Your task to perform on an android device: allow cookies in the chrome app Image 0: 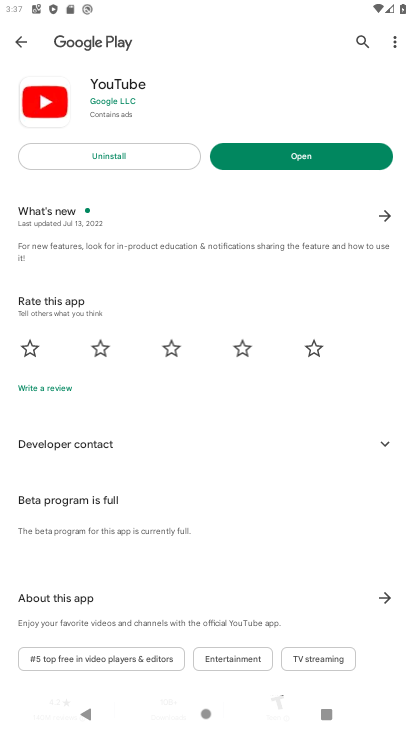
Step 0: press home button
Your task to perform on an android device: allow cookies in the chrome app Image 1: 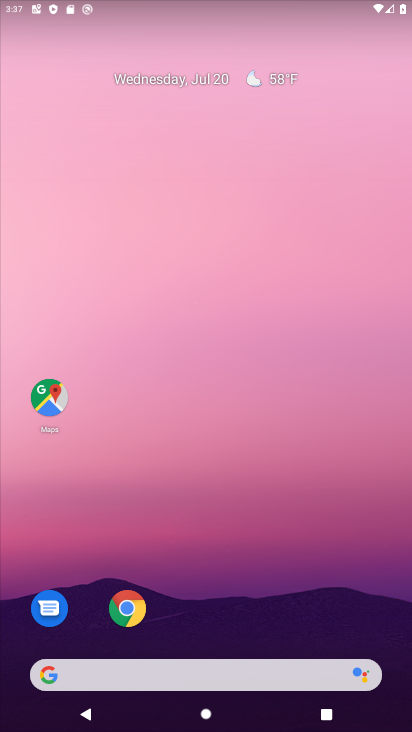
Step 1: click (141, 617)
Your task to perform on an android device: allow cookies in the chrome app Image 2: 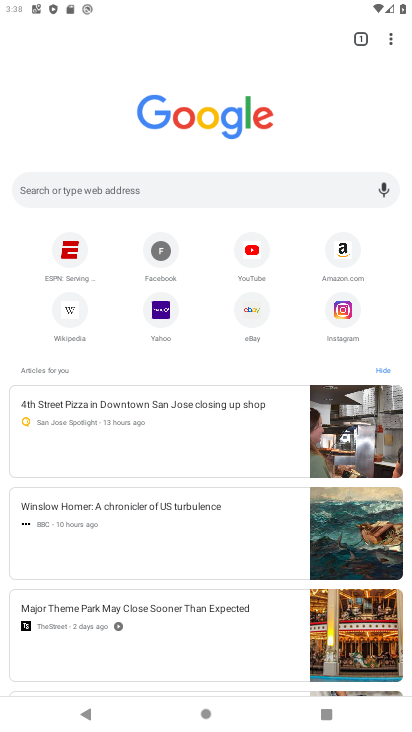
Step 2: click (384, 48)
Your task to perform on an android device: allow cookies in the chrome app Image 3: 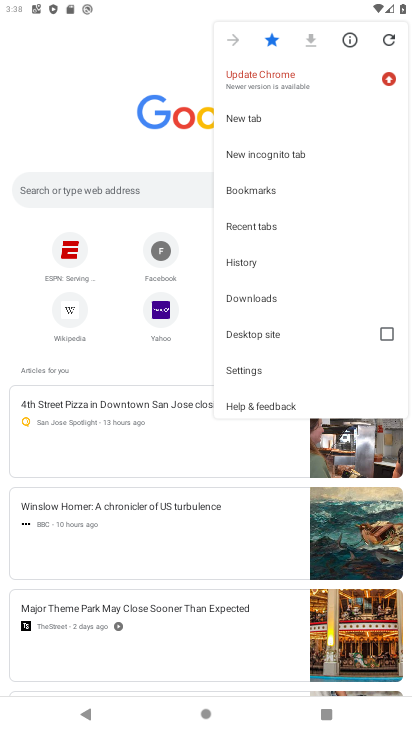
Step 3: click (242, 358)
Your task to perform on an android device: allow cookies in the chrome app Image 4: 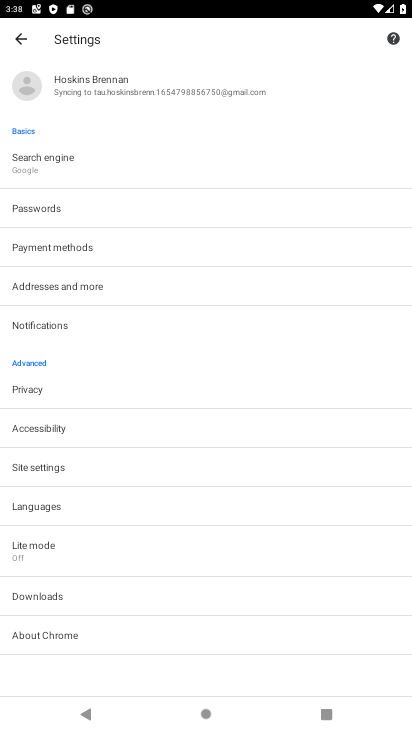
Step 4: click (82, 476)
Your task to perform on an android device: allow cookies in the chrome app Image 5: 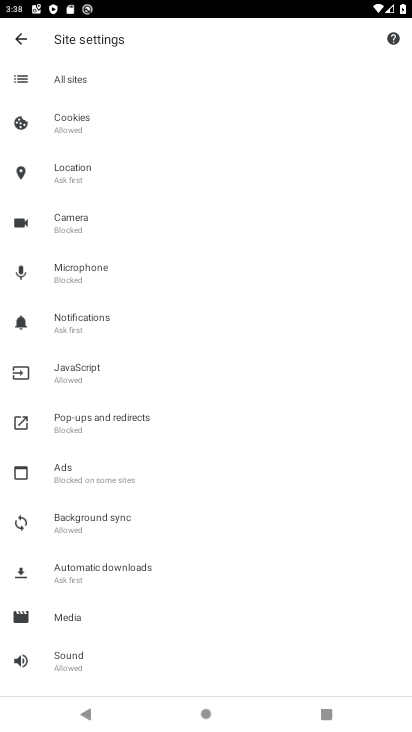
Step 5: click (140, 133)
Your task to perform on an android device: allow cookies in the chrome app Image 6: 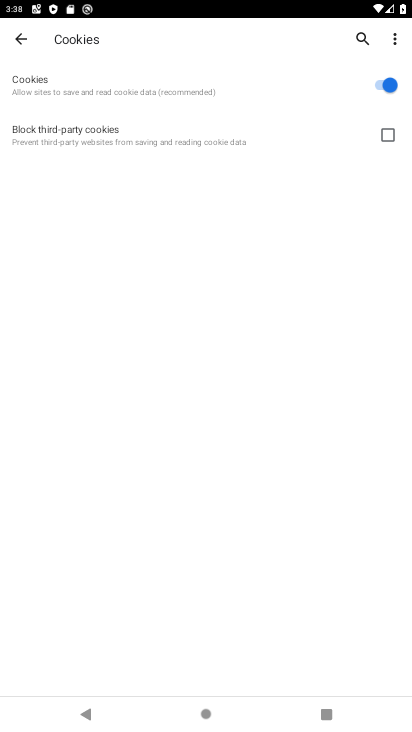
Step 6: task complete